Your task to perform on an android device: Go to display settings Image 0: 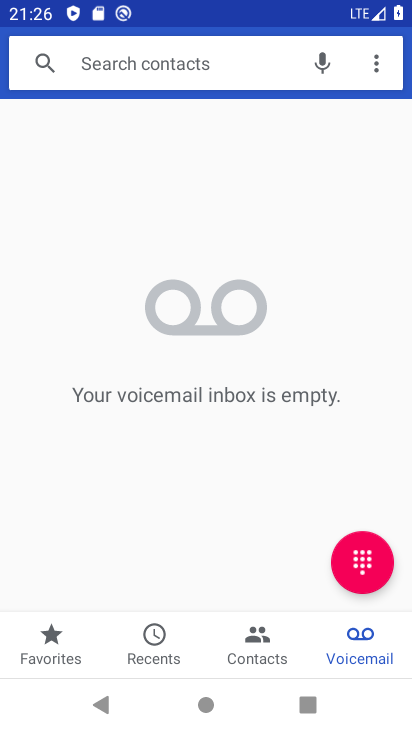
Step 0: press home button
Your task to perform on an android device: Go to display settings Image 1: 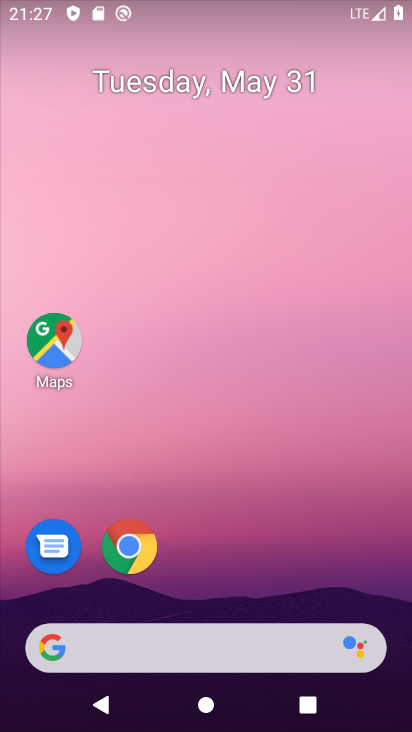
Step 1: drag from (394, 708) to (316, 183)
Your task to perform on an android device: Go to display settings Image 2: 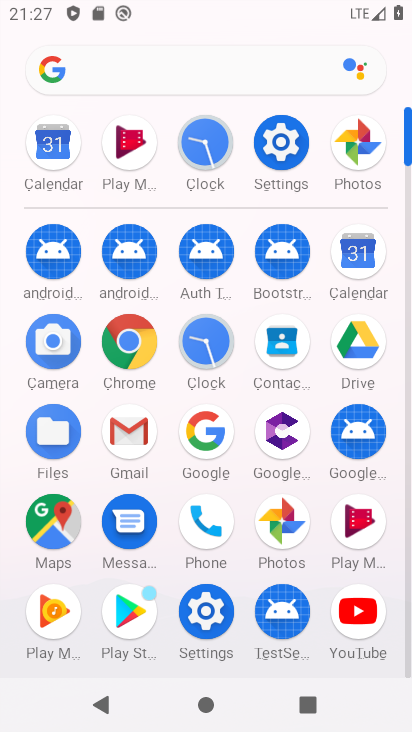
Step 2: click (273, 153)
Your task to perform on an android device: Go to display settings Image 3: 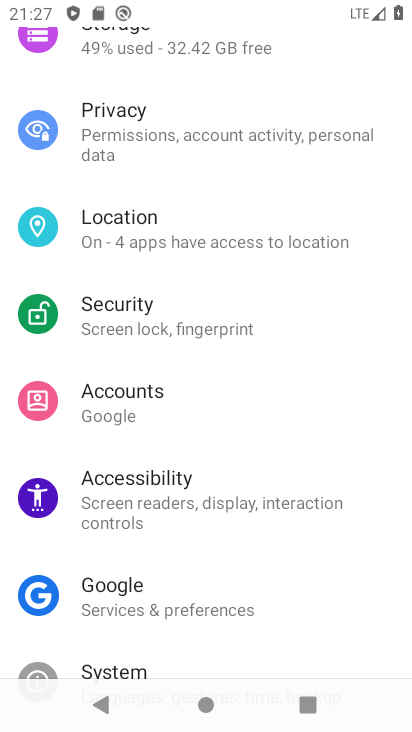
Step 3: drag from (293, 99) to (318, 549)
Your task to perform on an android device: Go to display settings Image 4: 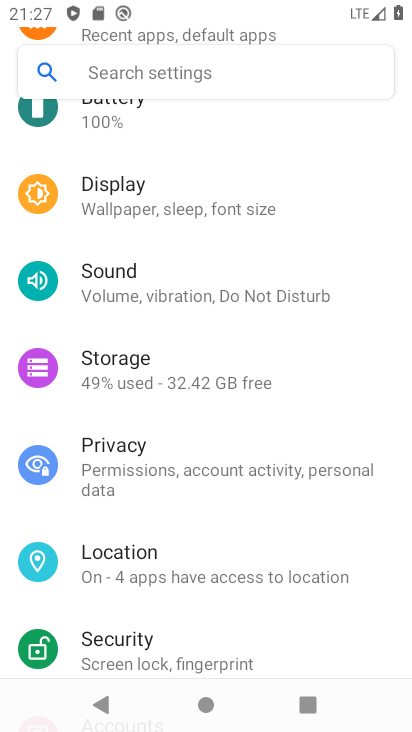
Step 4: click (122, 193)
Your task to perform on an android device: Go to display settings Image 5: 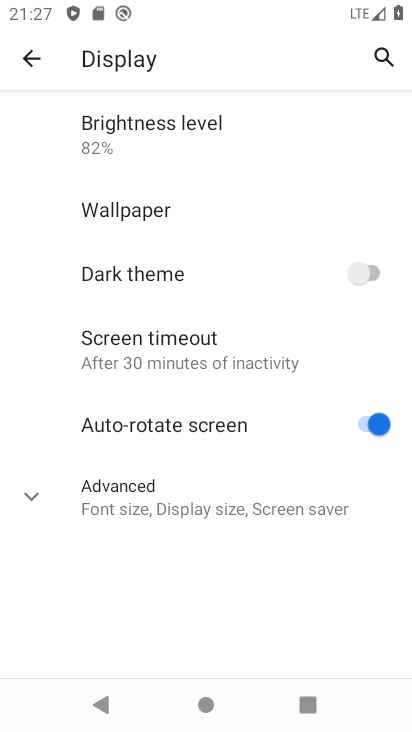
Step 5: drag from (259, 178) to (287, 586)
Your task to perform on an android device: Go to display settings Image 6: 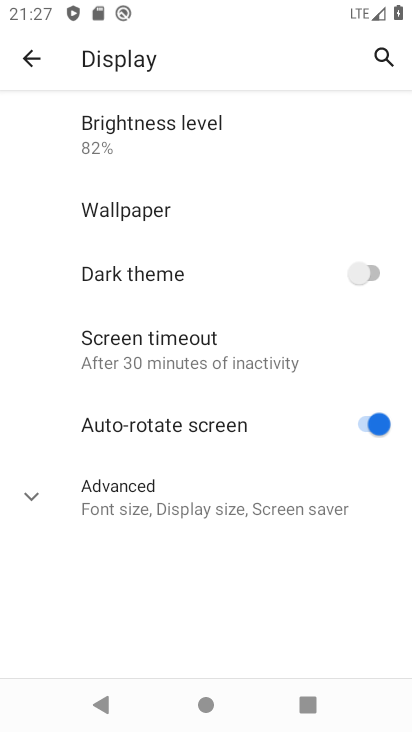
Step 6: click (32, 491)
Your task to perform on an android device: Go to display settings Image 7: 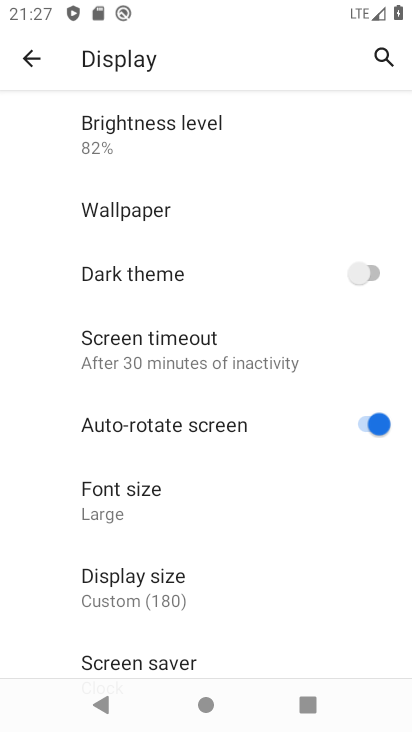
Step 7: task complete